Your task to perform on an android device: change text size in settings app Image 0: 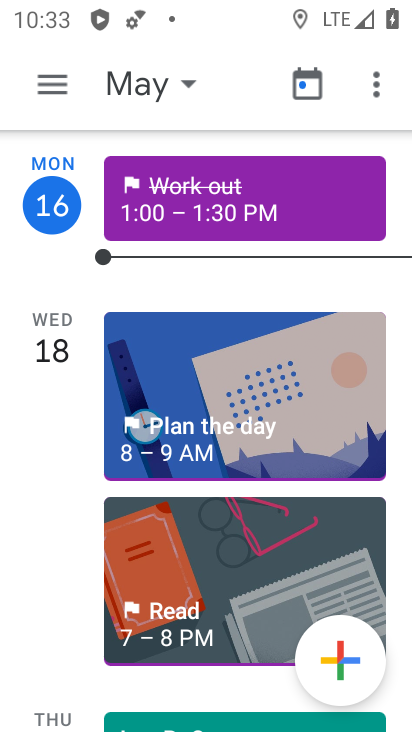
Step 0: press home button
Your task to perform on an android device: change text size in settings app Image 1: 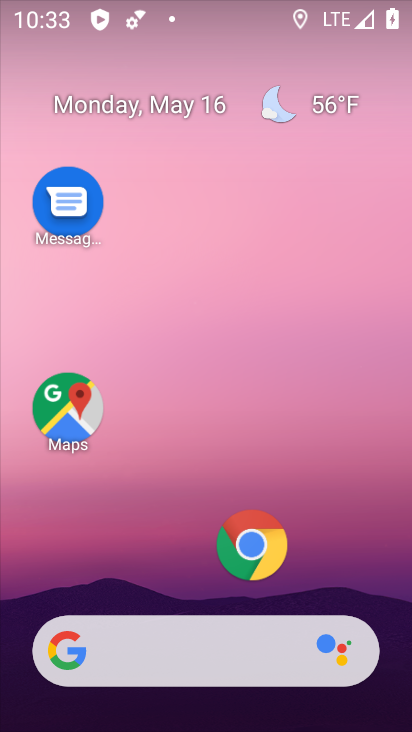
Step 1: drag from (239, 608) to (149, 12)
Your task to perform on an android device: change text size in settings app Image 2: 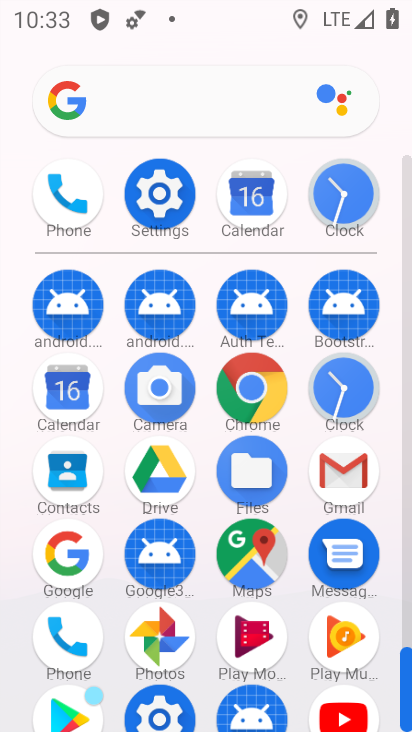
Step 2: click (160, 217)
Your task to perform on an android device: change text size in settings app Image 3: 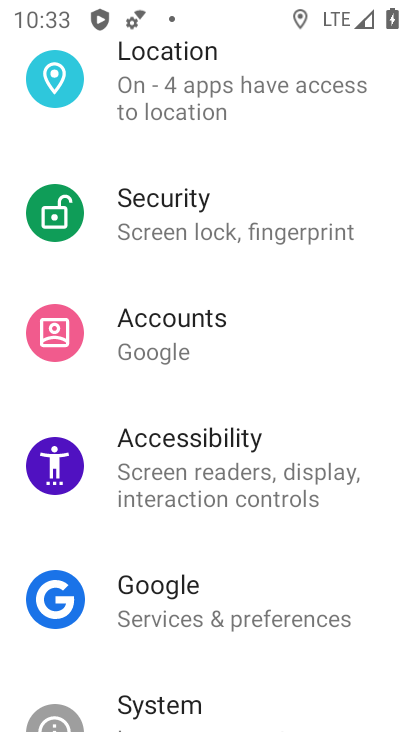
Step 3: drag from (172, 200) to (110, 707)
Your task to perform on an android device: change text size in settings app Image 4: 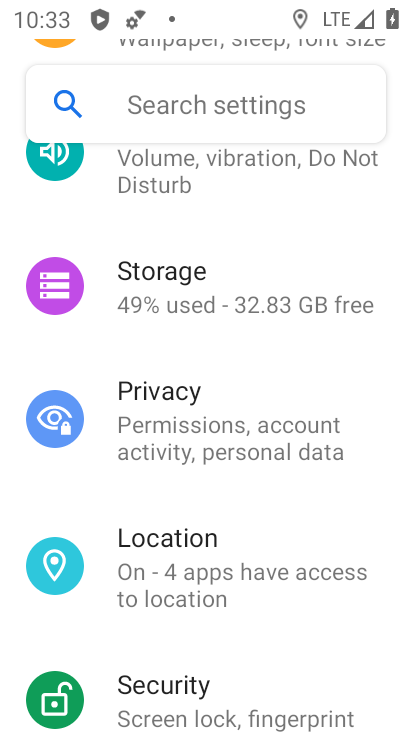
Step 4: drag from (108, 205) to (132, 480)
Your task to perform on an android device: change text size in settings app Image 5: 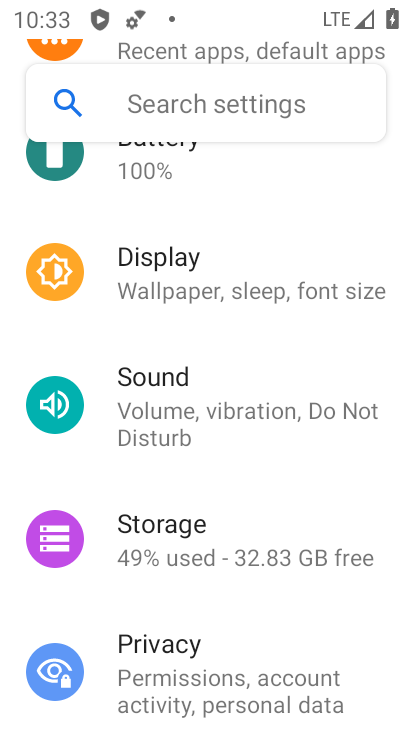
Step 5: click (150, 308)
Your task to perform on an android device: change text size in settings app Image 6: 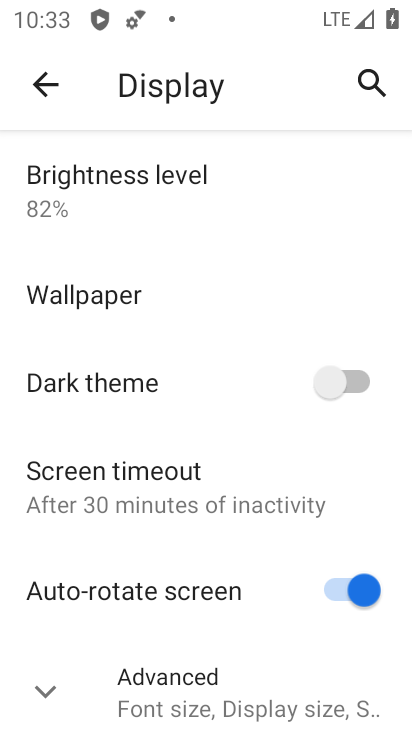
Step 6: click (182, 680)
Your task to perform on an android device: change text size in settings app Image 7: 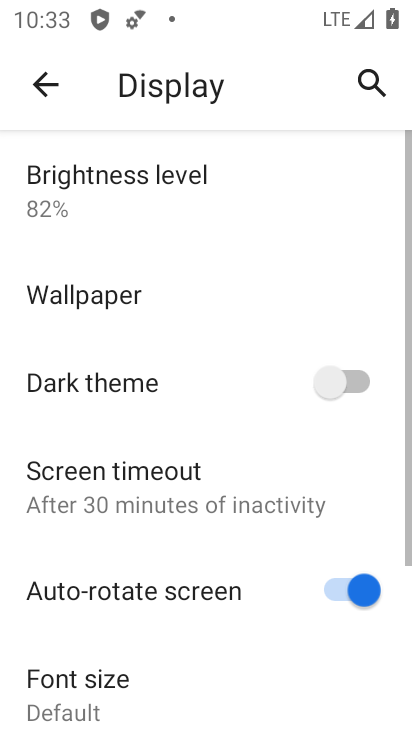
Step 7: drag from (190, 659) to (112, 16)
Your task to perform on an android device: change text size in settings app Image 8: 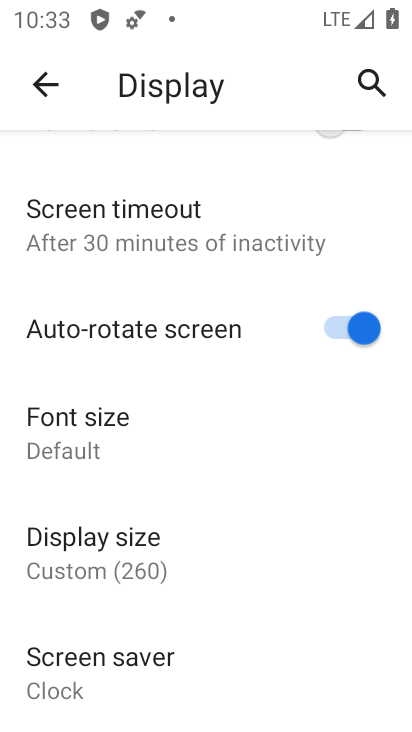
Step 8: click (80, 406)
Your task to perform on an android device: change text size in settings app Image 9: 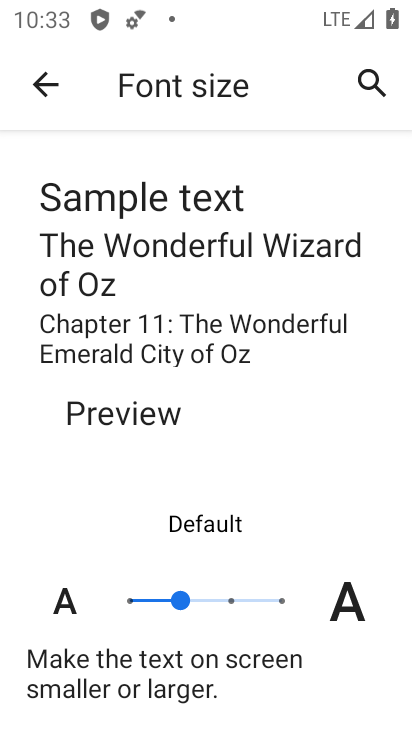
Step 9: click (122, 609)
Your task to perform on an android device: change text size in settings app Image 10: 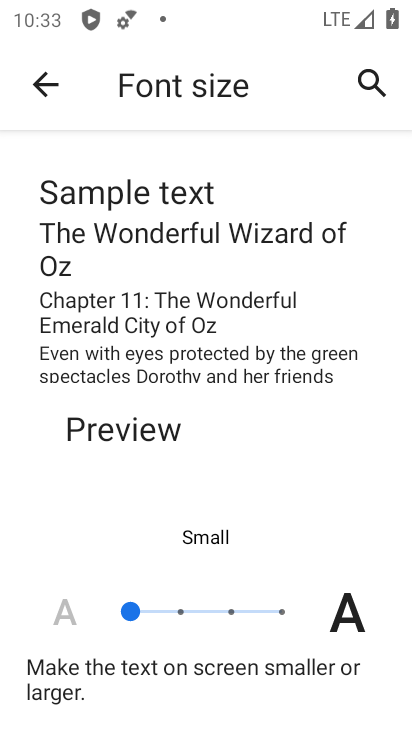
Step 10: task complete